Your task to perform on an android device: Add razer blackwidow to the cart on ebay Image 0: 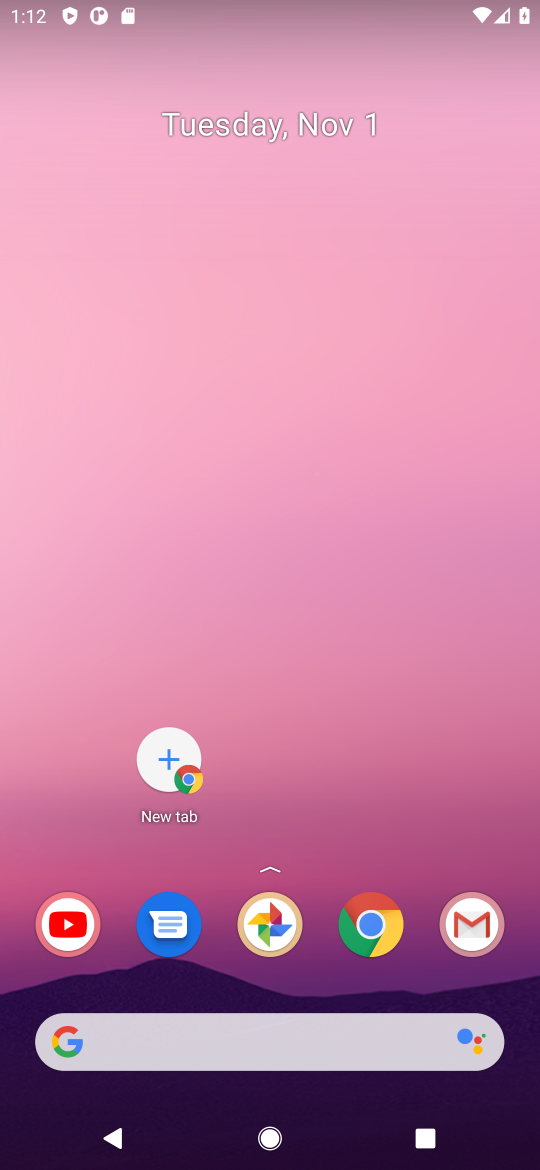
Step 0: click (377, 958)
Your task to perform on an android device: Add razer blackwidow to the cart on ebay Image 1: 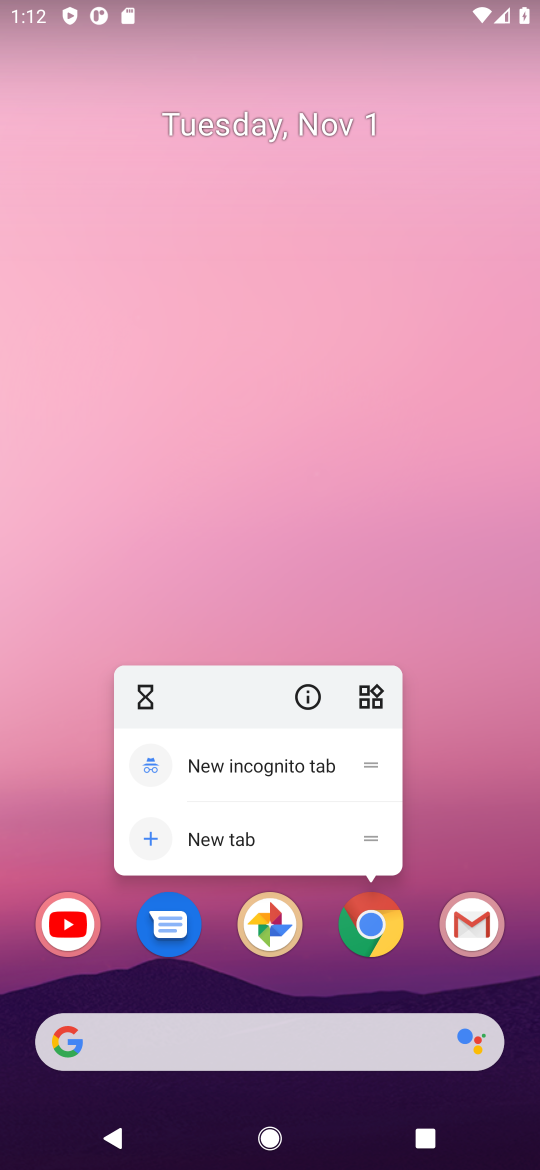
Step 1: click (383, 939)
Your task to perform on an android device: Add razer blackwidow to the cart on ebay Image 2: 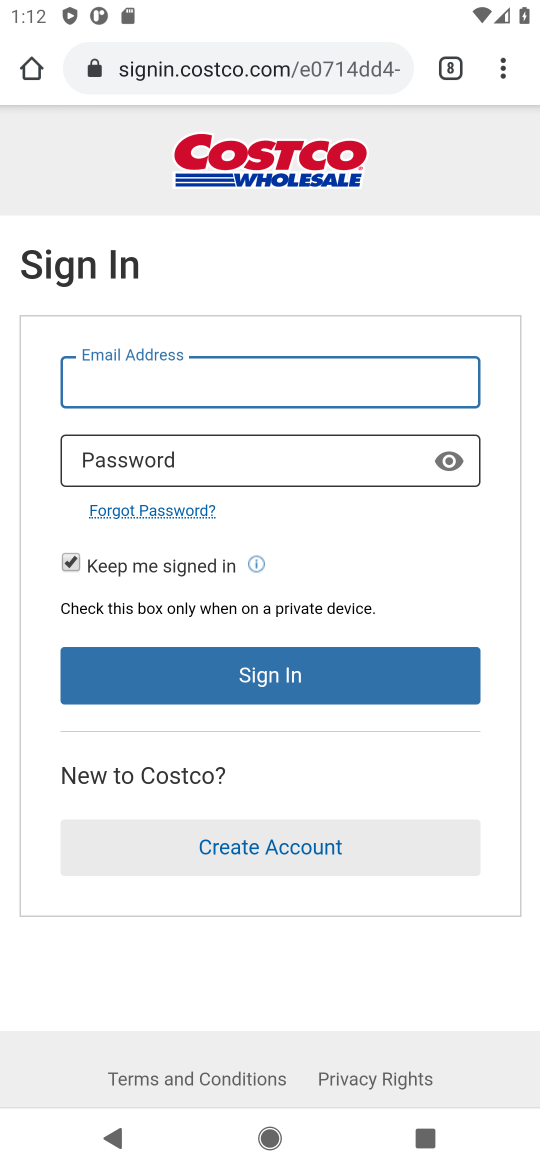
Step 2: click (166, 73)
Your task to perform on an android device: Add razer blackwidow to the cart on ebay Image 3: 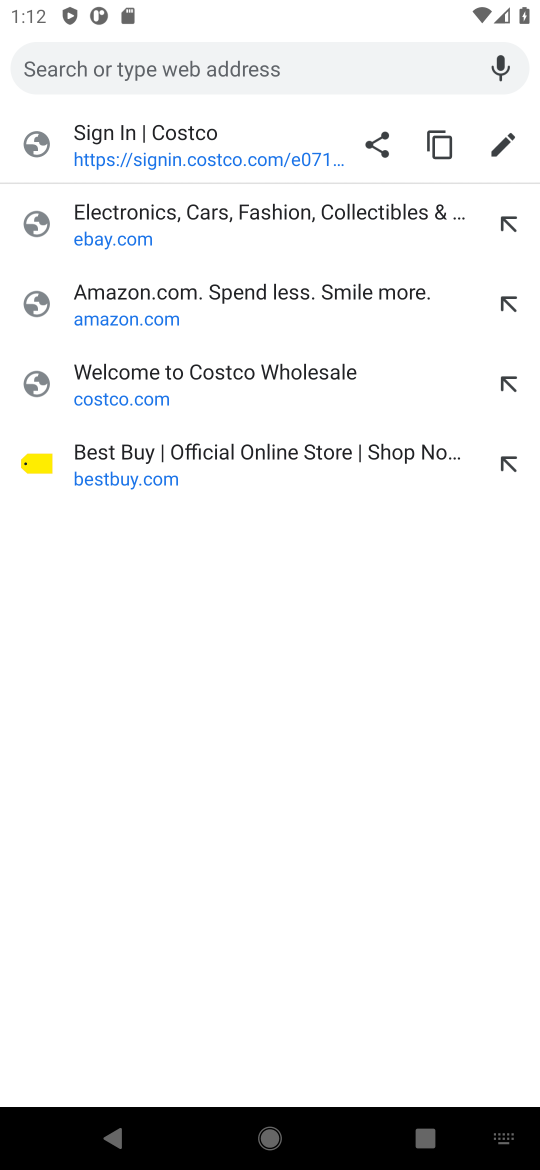
Step 3: type "ebay"
Your task to perform on an android device: Add razer blackwidow to the cart on ebay Image 4: 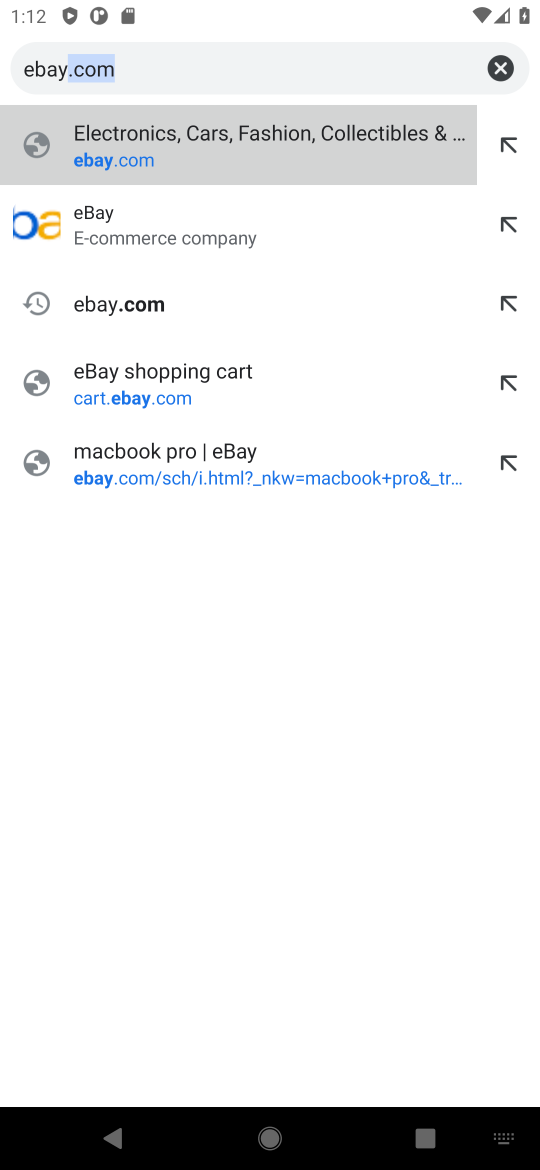
Step 4: type ""
Your task to perform on an android device: Add razer blackwidow to the cart on ebay Image 5: 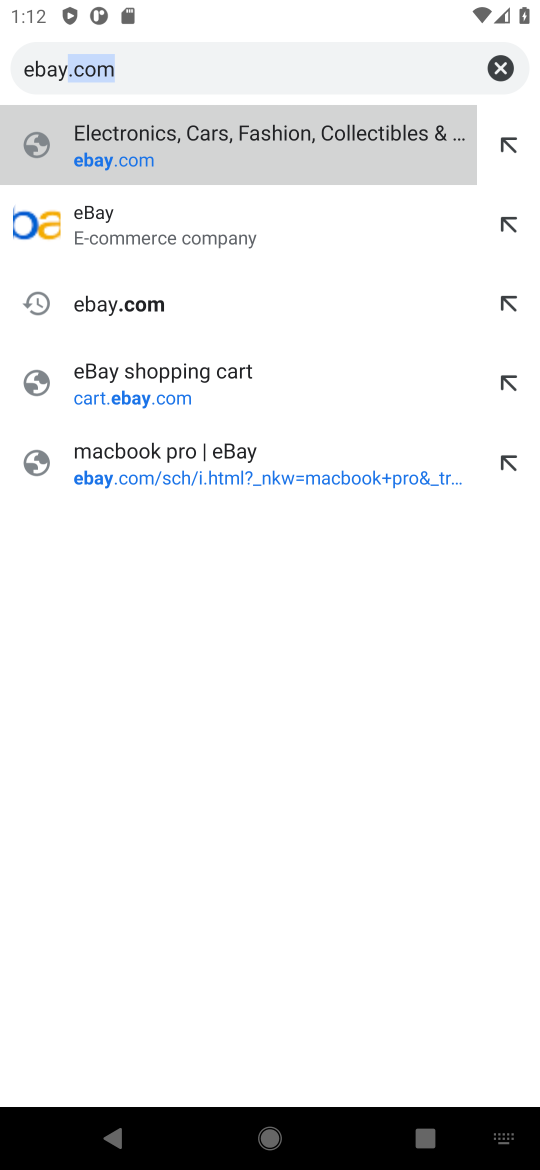
Step 5: click (98, 220)
Your task to perform on an android device: Add razer blackwidow to the cart on ebay Image 6: 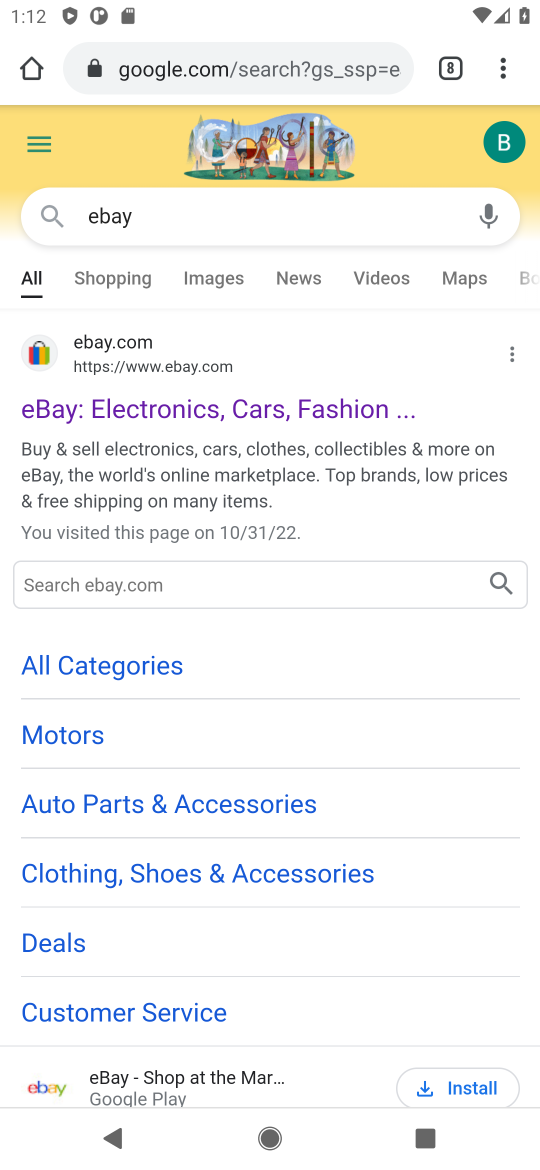
Step 6: drag from (189, 887) to (263, 114)
Your task to perform on an android device: Add razer blackwidow to the cart on ebay Image 7: 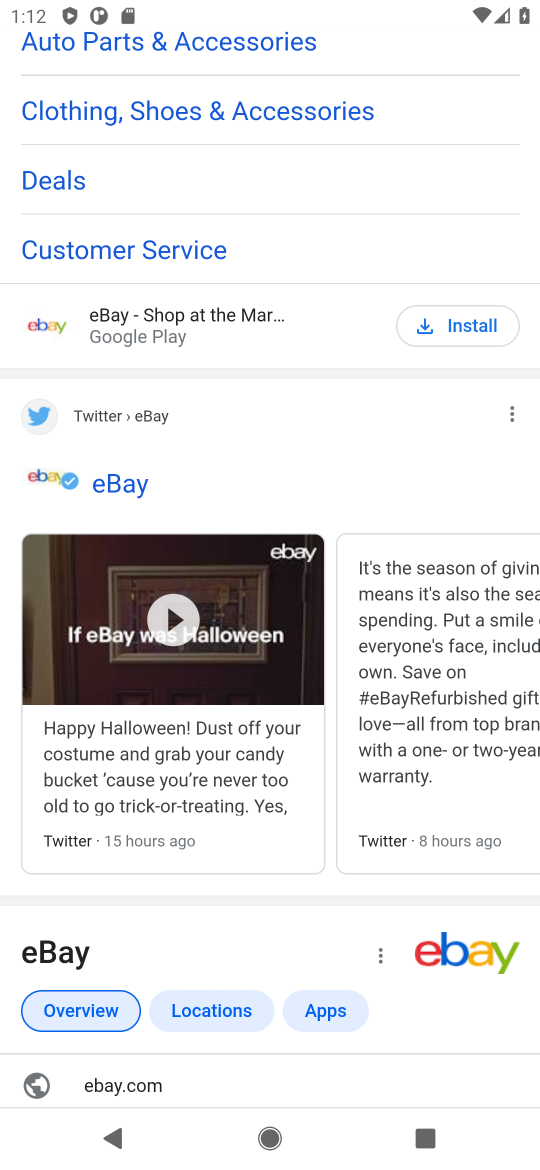
Step 7: drag from (197, 315) to (199, 863)
Your task to perform on an android device: Add razer blackwidow to the cart on ebay Image 8: 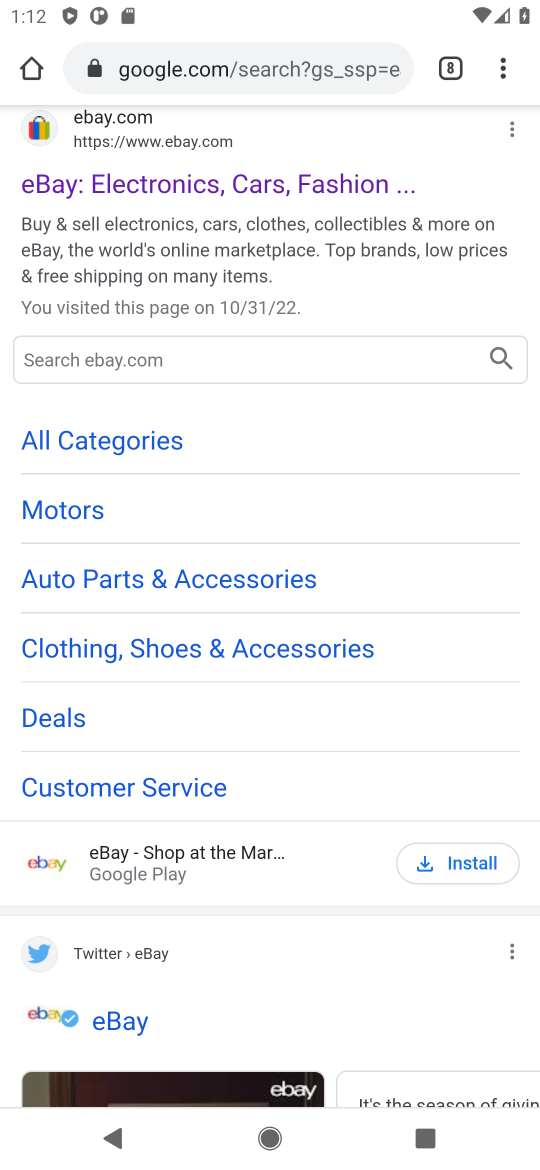
Step 8: click (174, 180)
Your task to perform on an android device: Add razer blackwidow to the cart on ebay Image 9: 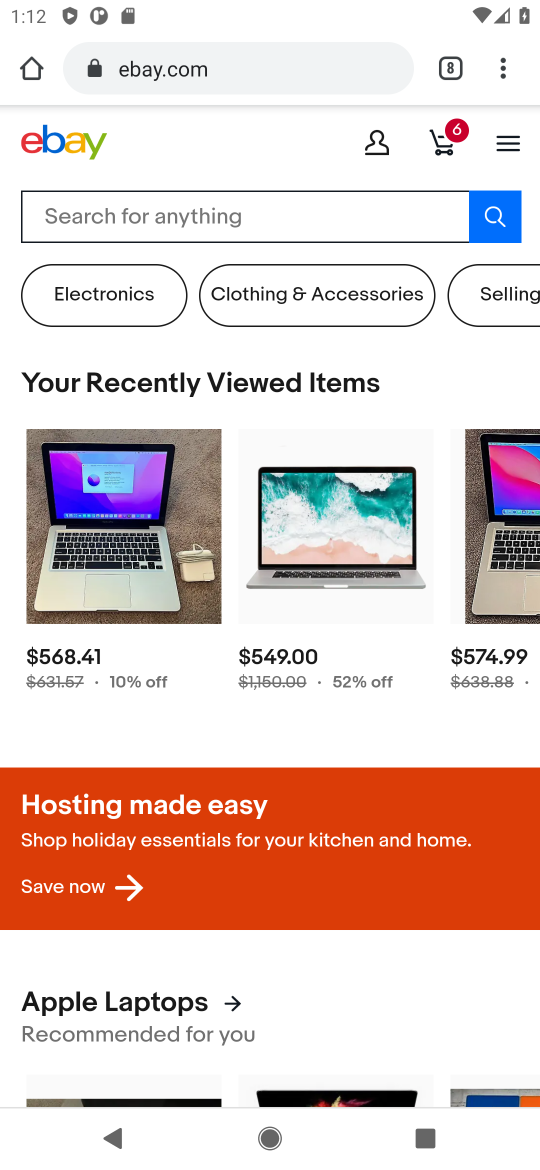
Step 9: click (109, 212)
Your task to perform on an android device: Add razer blackwidow to the cart on ebay Image 10: 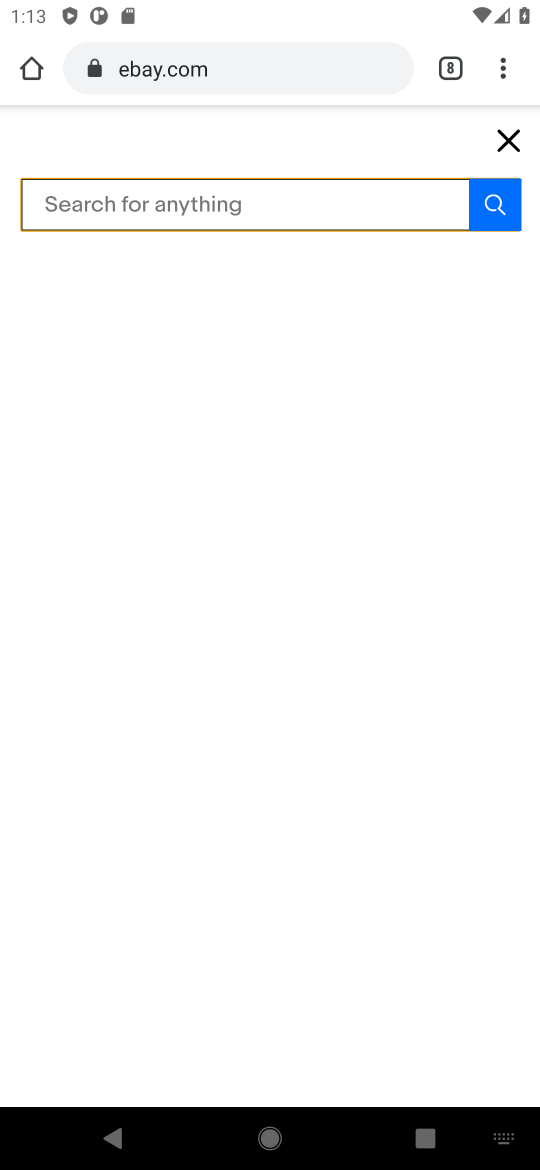
Step 10: type "razer blackwidow"
Your task to perform on an android device: Add razer blackwidow to the cart on ebay Image 11: 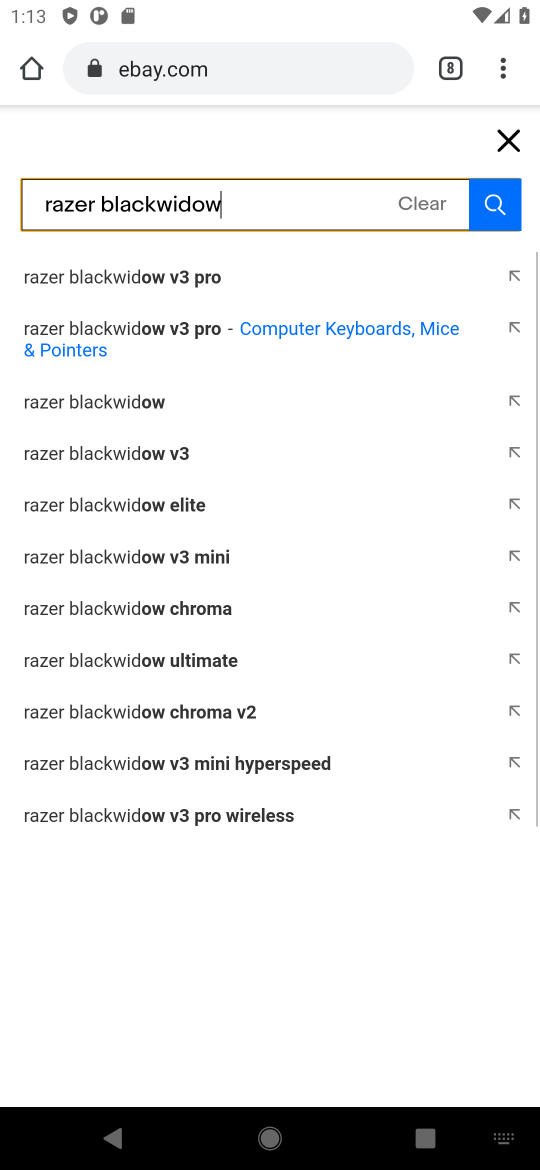
Step 11: type ""
Your task to perform on an android device: Add razer blackwidow to the cart on ebay Image 12: 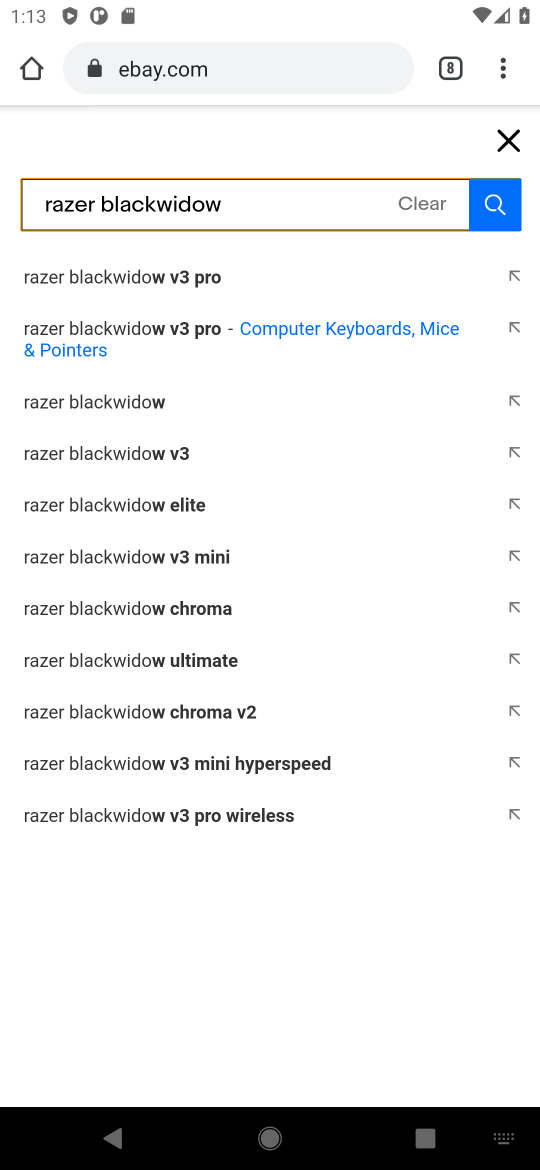
Step 12: click (100, 406)
Your task to perform on an android device: Add razer blackwidow to the cart on ebay Image 13: 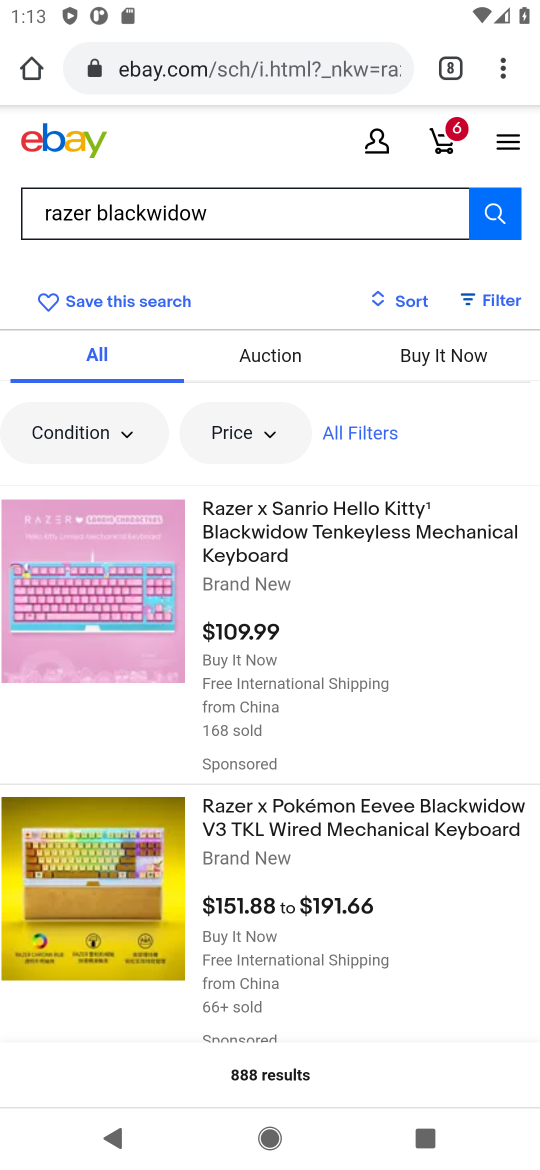
Step 13: drag from (328, 964) to (405, 518)
Your task to perform on an android device: Add razer blackwidow to the cart on ebay Image 14: 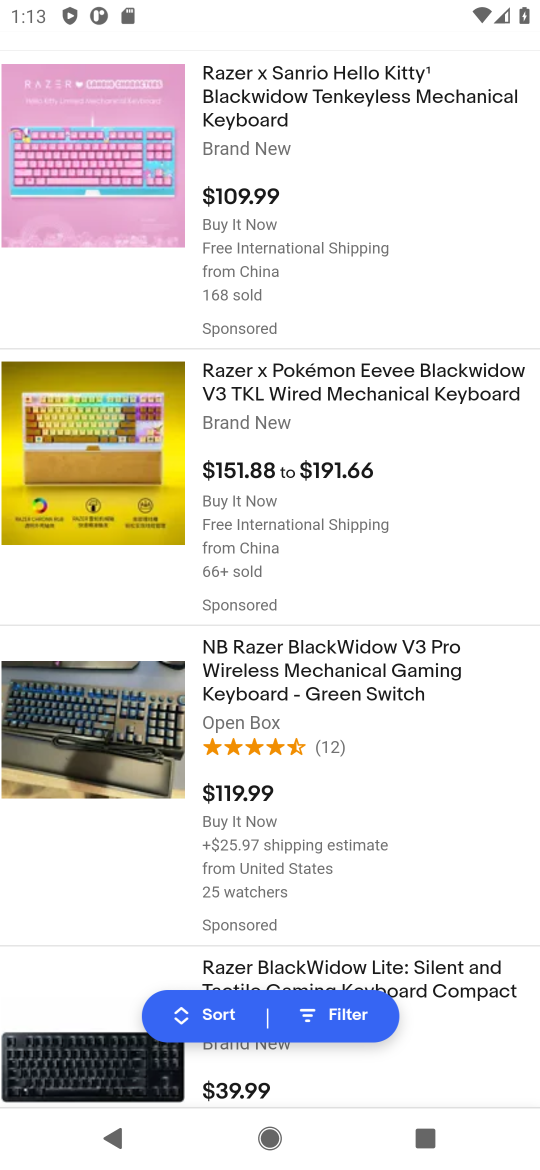
Step 14: click (98, 755)
Your task to perform on an android device: Add razer blackwidow to the cart on ebay Image 15: 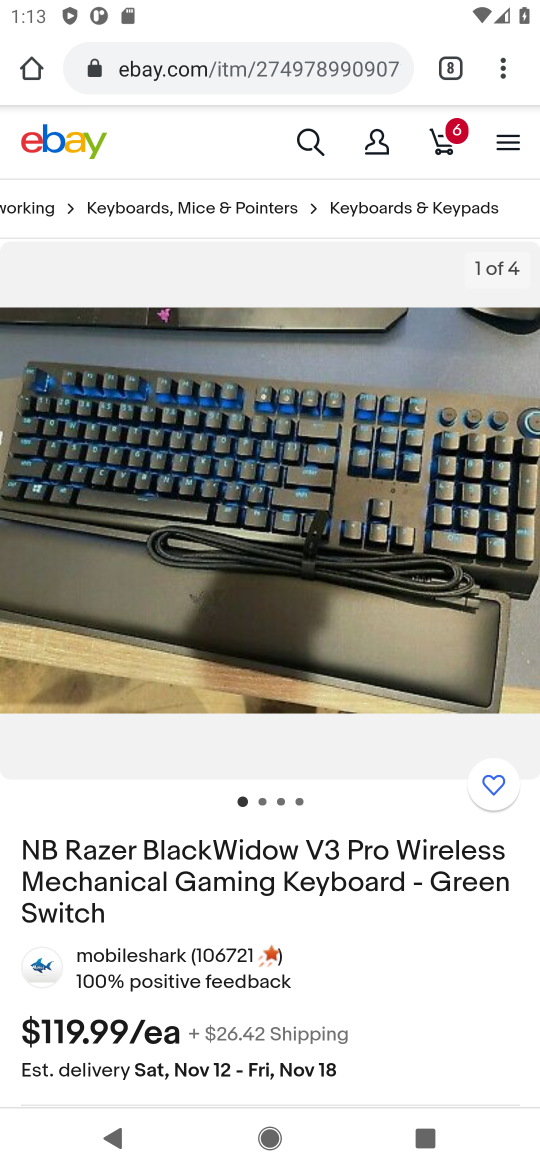
Step 15: drag from (136, 945) to (150, 421)
Your task to perform on an android device: Add razer blackwidow to the cart on ebay Image 16: 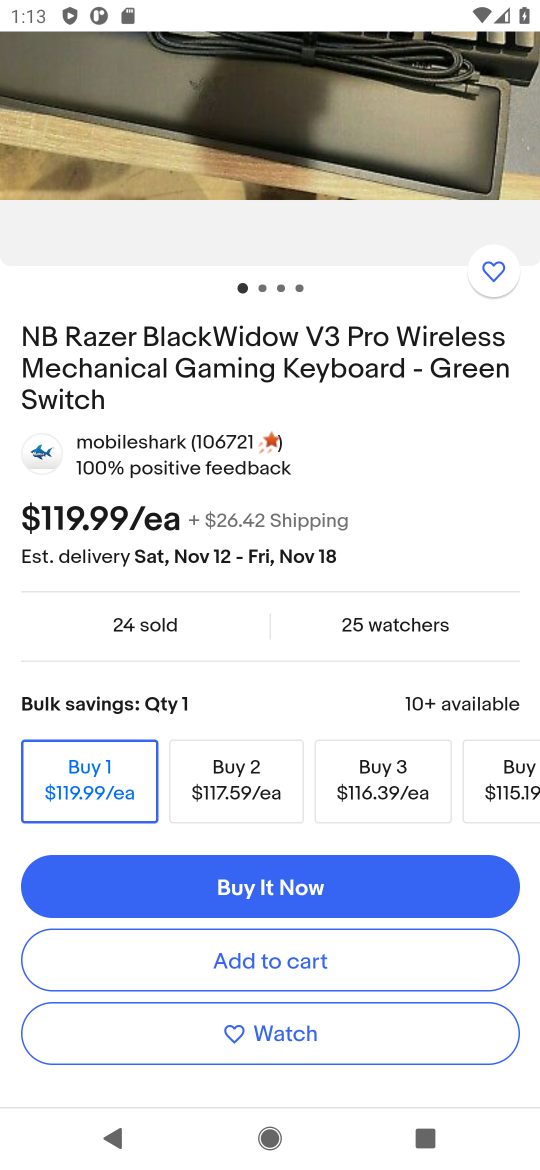
Step 16: click (250, 960)
Your task to perform on an android device: Add razer blackwidow to the cart on ebay Image 17: 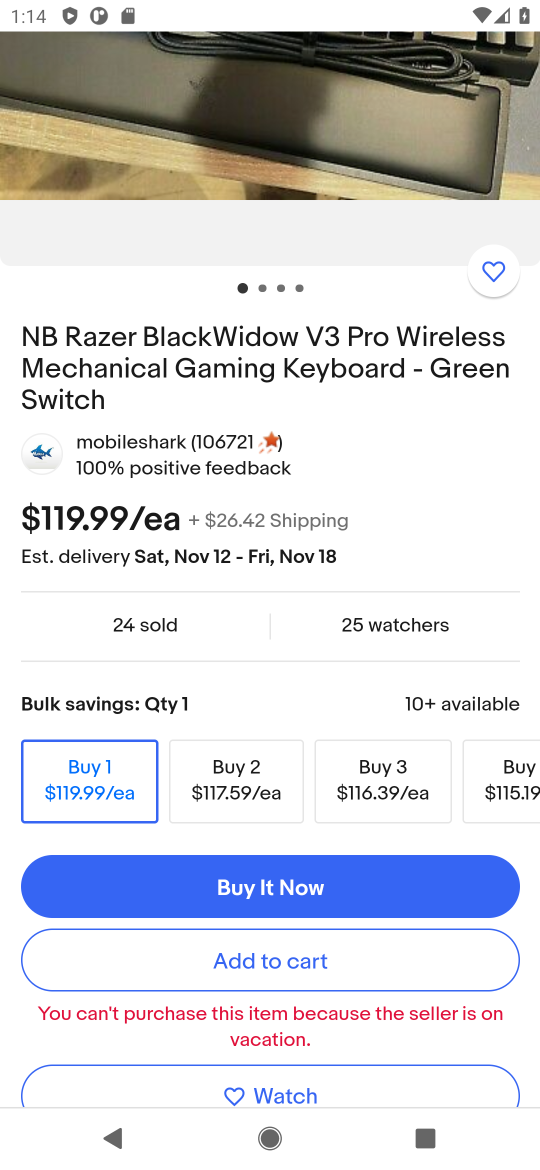
Step 17: click (234, 775)
Your task to perform on an android device: Add razer blackwidow to the cart on ebay Image 18: 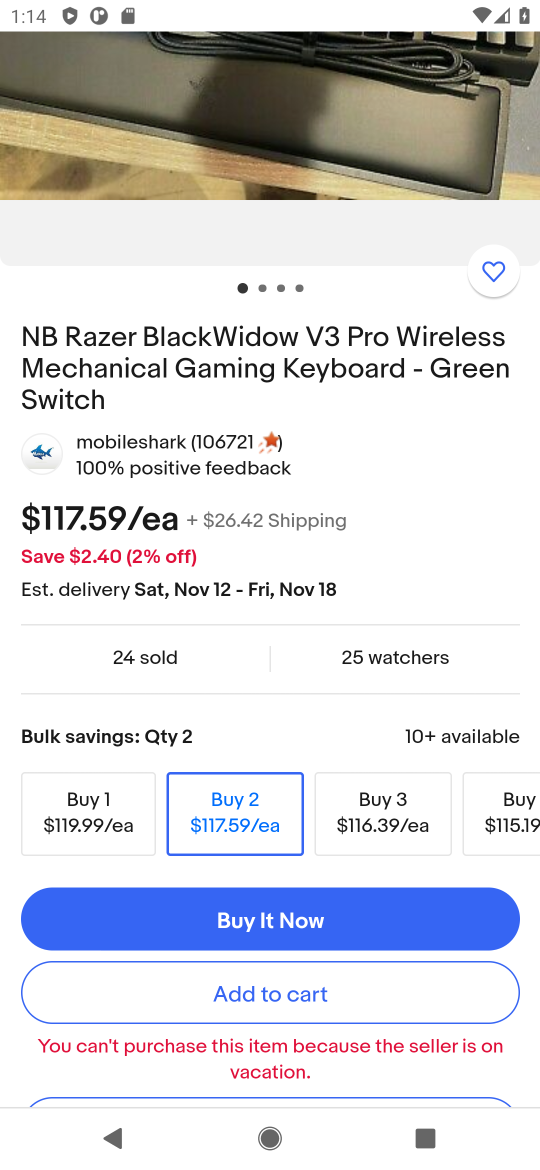
Step 18: drag from (330, 713) to (345, 401)
Your task to perform on an android device: Add razer blackwidow to the cart on ebay Image 19: 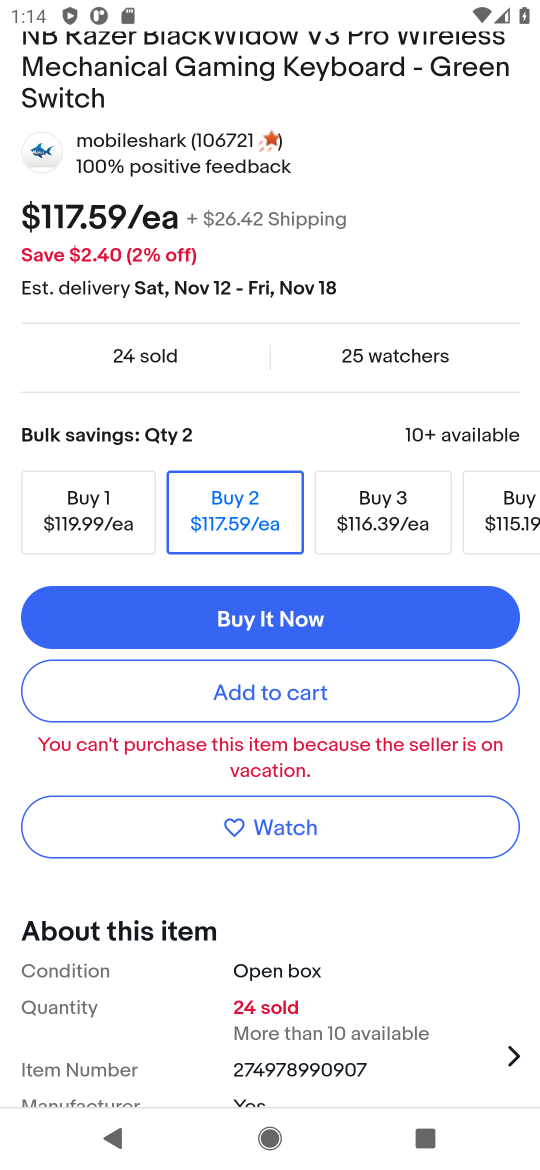
Step 19: press back button
Your task to perform on an android device: Add razer blackwidow to the cart on ebay Image 20: 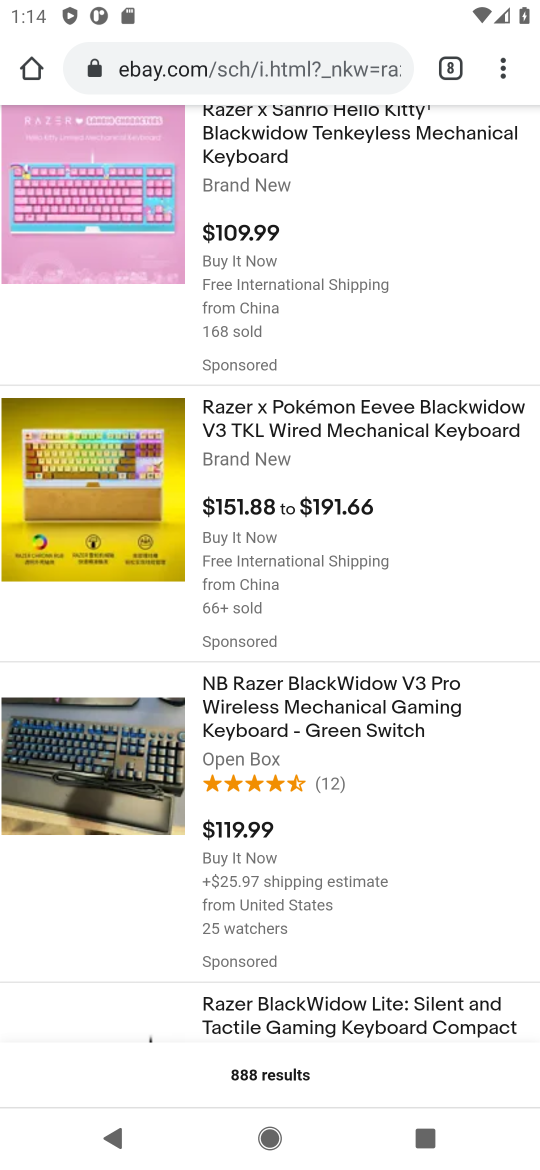
Step 20: drag from (219, 810) to (265, 287)
Your task to perform on an android device: Add razer blackwidow to the cart on ebay Image 21: 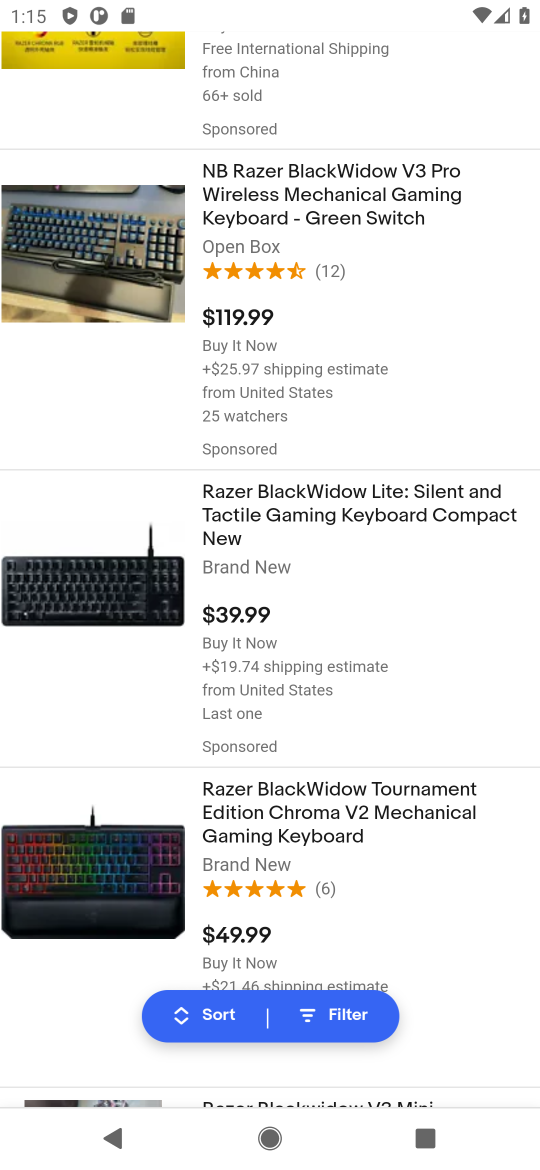
Step 21: click (297, 787)
Your task to perform on an android device: Add razer blackwidow to the cart on ebay Image 22: 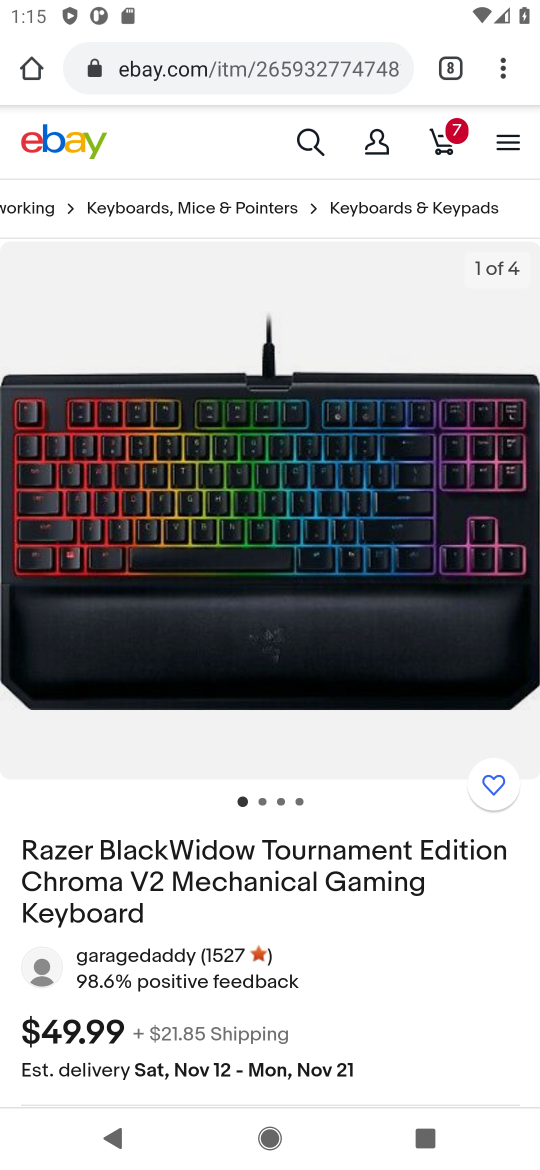
Step 22: drag from (348, 989) to (366, 590)
Your task to perform on an android device: Add razer blackwidow to the cart on ebay Image 23: 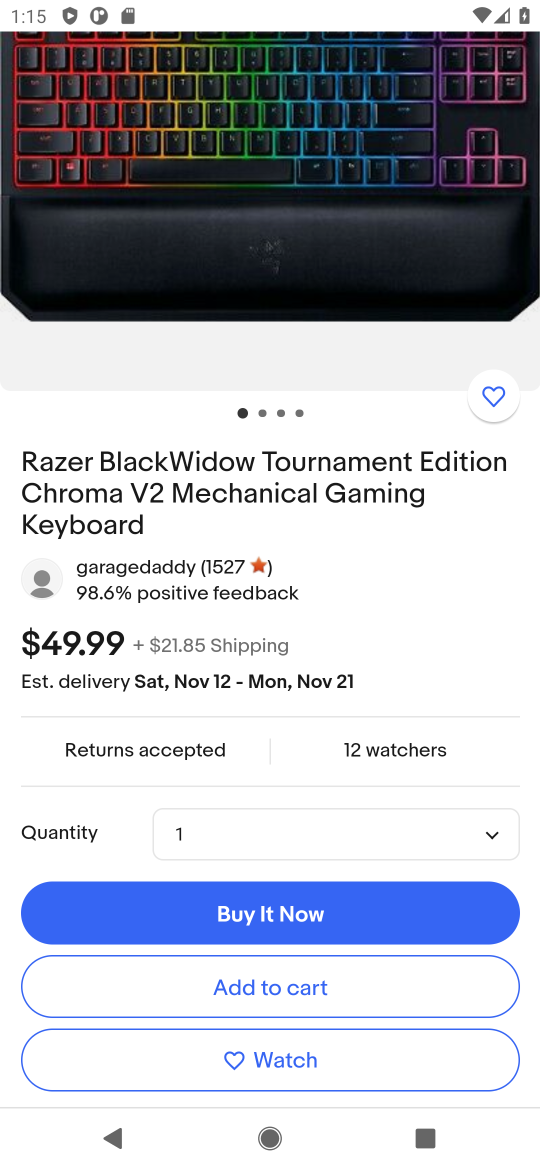
Step 23: click (254, 989)
Your task to perform on an android device: Add razer blackwidow to the cart on ebay Image 24: 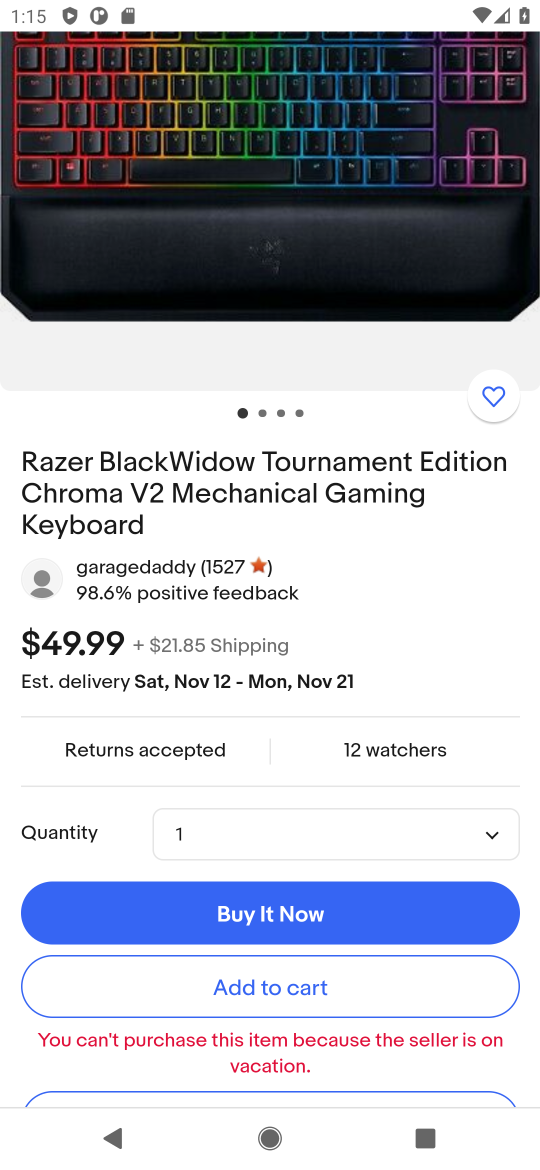
Step 24: task complete